Your task to perform on an android device: turn off notifications in google photos Image 0: 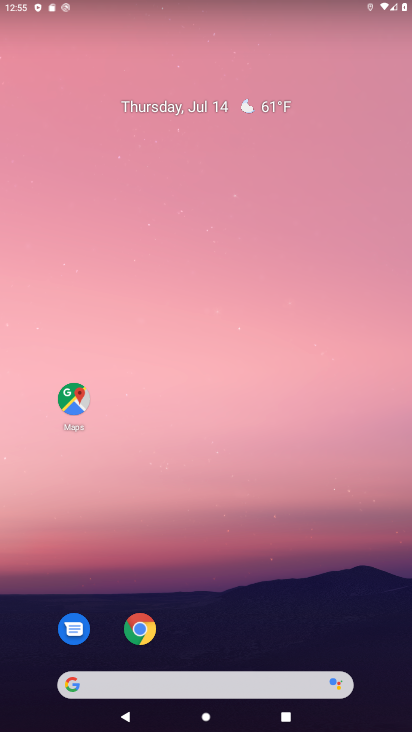
Step 0: drag from (243, 628) to (277, 97)
Your task to perform on an android device: turn off notifications in google photos Image 1: 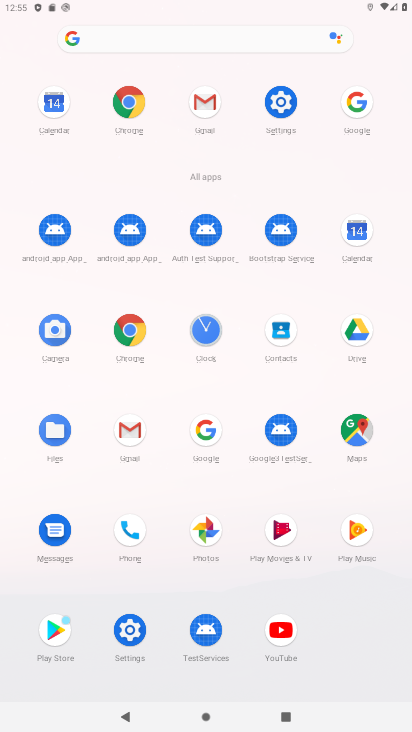
Step 1: click (207, 533)
Your task to perform on an android device: turn off notifications in google photos Image 2: 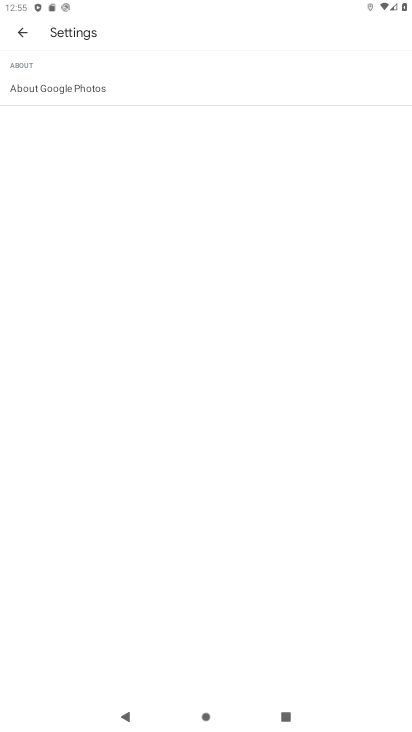
Step 2: press back button
Your task to perform on an android device: turn off notifications in google photos Image 3: 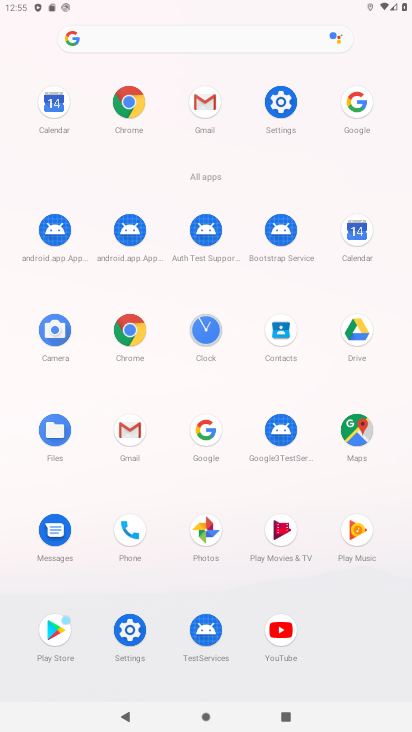
Step 3: click (213, 523)
Your task to perform on an android device: turn off notifications in google photos Image 4: 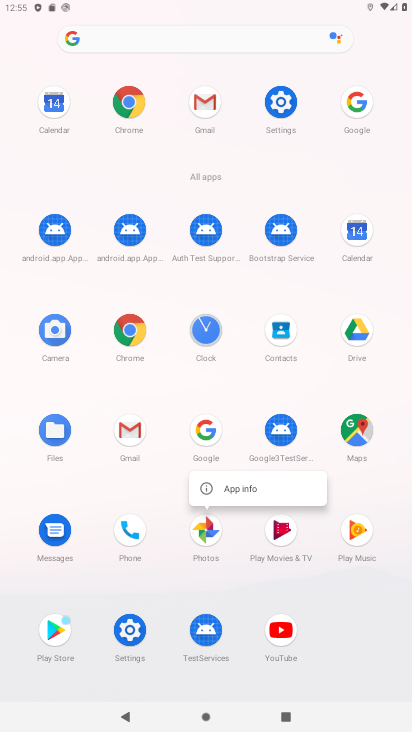
Step 4: click (207, 529)
Your task to perform on an android device: turn off notifications in google photos Image 5: 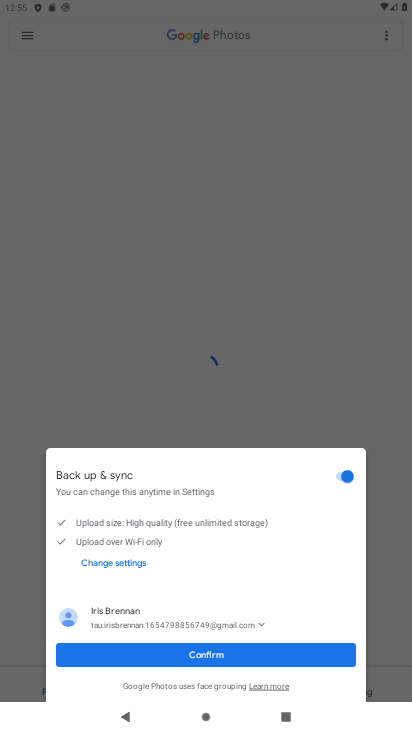
Step 5: click (196, 660)
Your task to perform on an android device: turn off notifications in google photos Image 6: 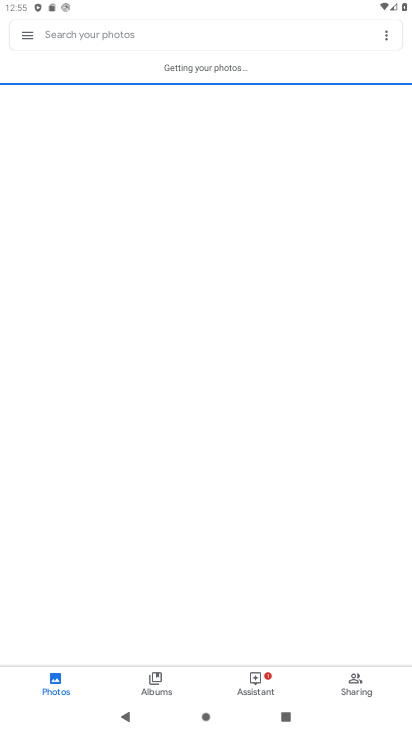
Step 6: click (24, 35)
Your task to perform on an android device: turn off notifications in google photos Image 7: 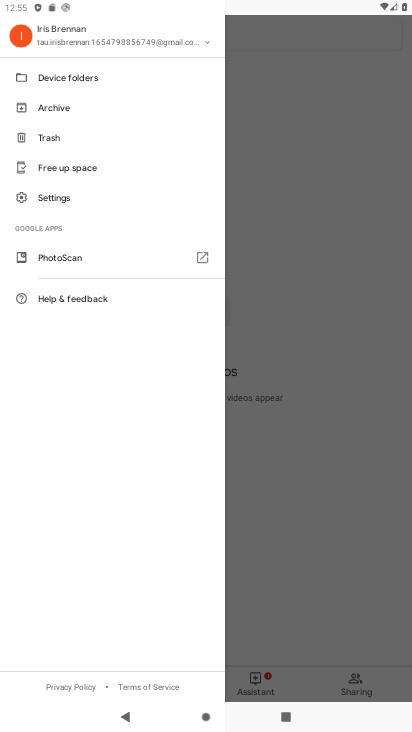
Step 7: click (50, 194)
Your task to perform on an android device: turn off notifications in google photos Image 8: 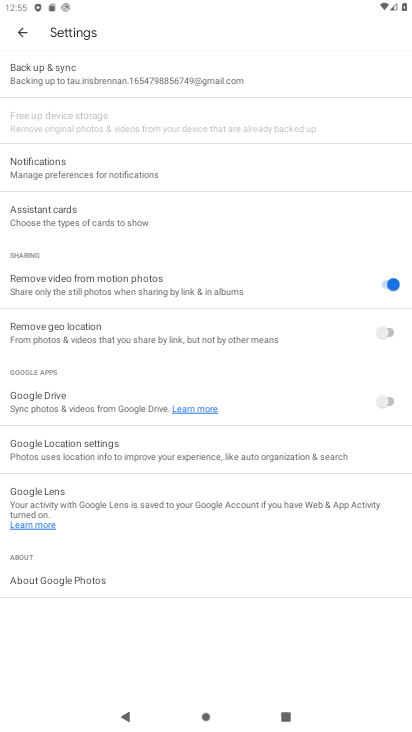
Step 8: click (94, 176)
Your task to perform on an android device: turn off notifications in google photos Image 9: 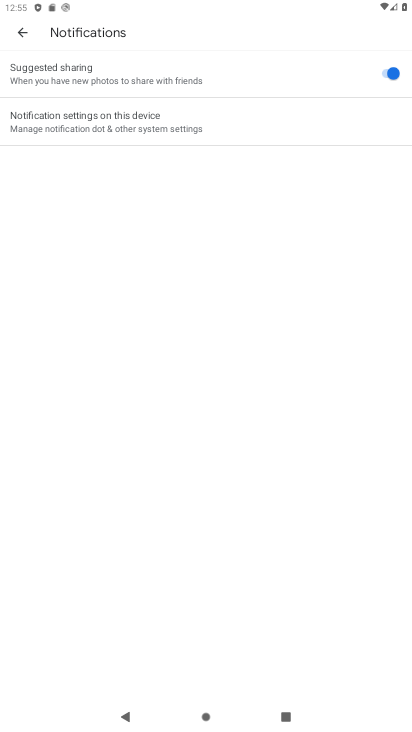
Step 9: click (395, 74)
Your task to perform on an android device: turn off notifications in google photos Image 10: 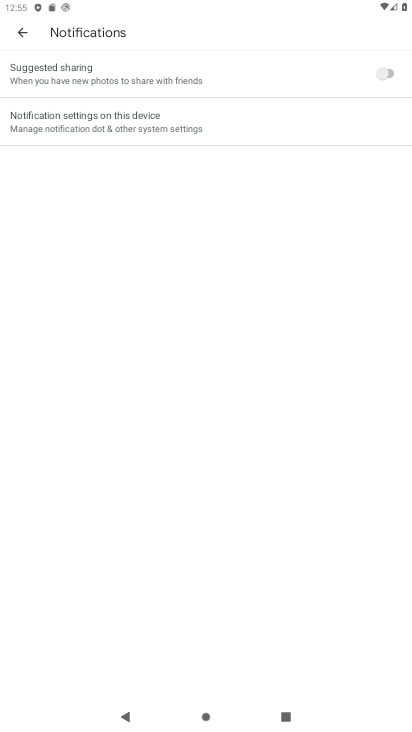
Step 10: task complete